Your task to perform on an android device: Open network settings Image 0: 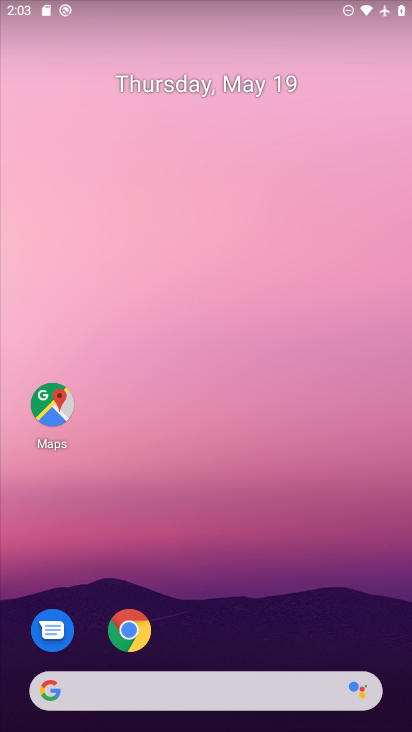
Step 0: drag from (206, 657) to (204, 102)
Your task to perform on an android device: Open network settings Image 1: 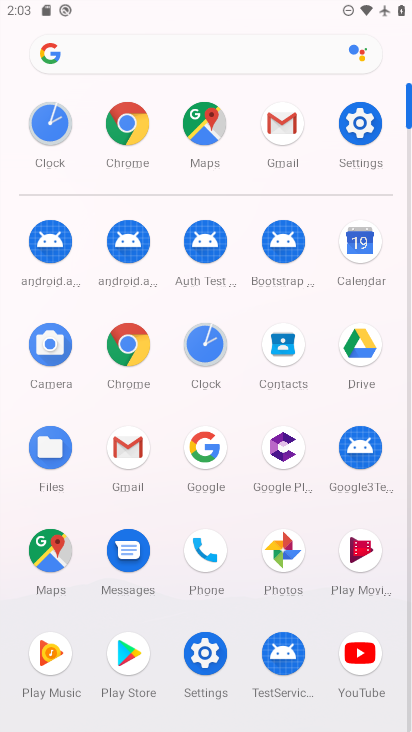
Step 1: click (361, 120)
Your task to perform on an android device: Open network settings Image 2: 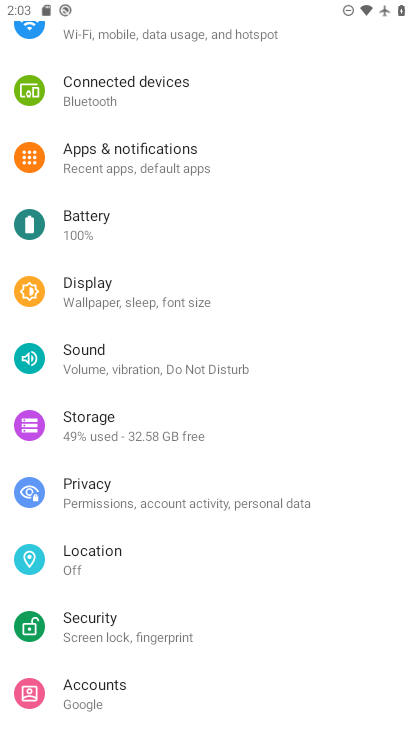
Step 2: drag from (161, 80) to (122, 572)
Your task to perform on an android device: Open network settings Image 3: 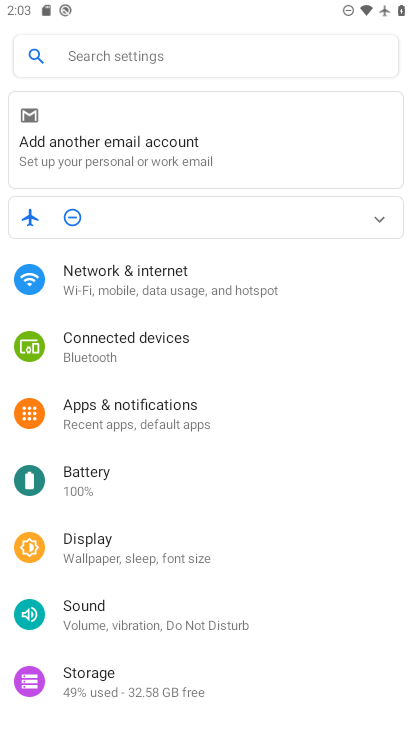
Step 3: click (135, 303)
Your task to perform on an android device: Open network settings Image 4: 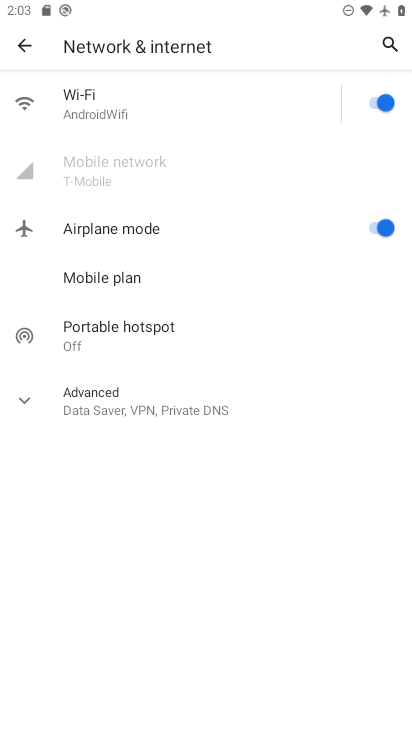
Step 4: task complete